Your task to perform on an android device: turn off notifications settings in the gmail app Image 0: 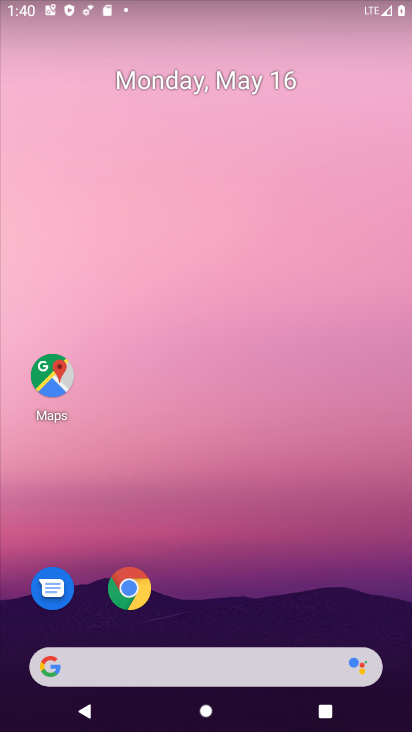
Step 0: drag from (268, 573) to (199, 102)
Your task to perform on an android device: turn off notifications settings in the gmail app Image 1: 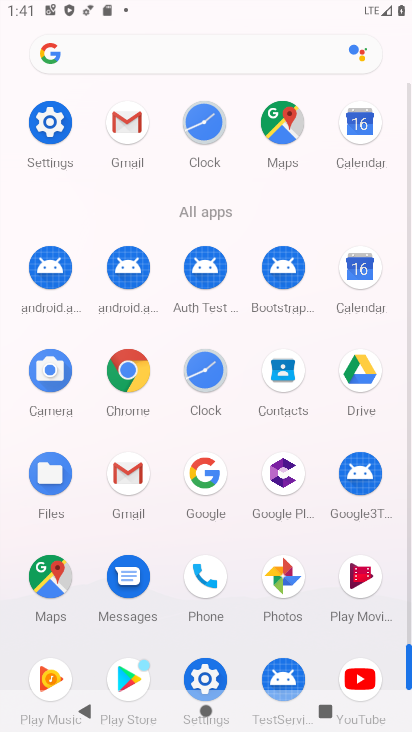
Step 1: click (127, 124)
Your task to perform on an android device: turn off notifications settings in the gmail app Image 2: 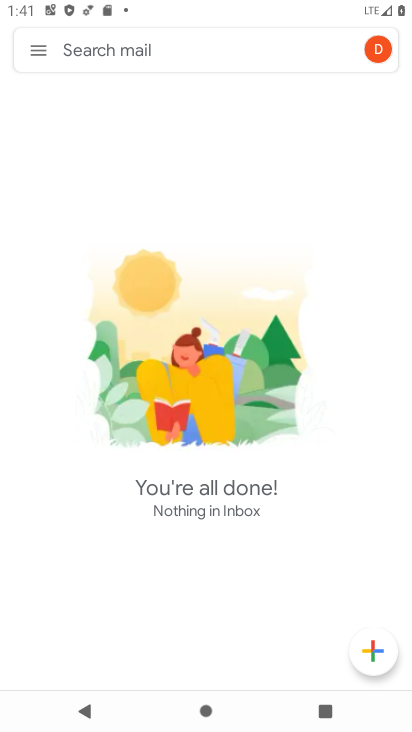
Step 2: click (33, 54)
Your task to perform on an android device: turn off notifications settings in the gmail app Image 3: 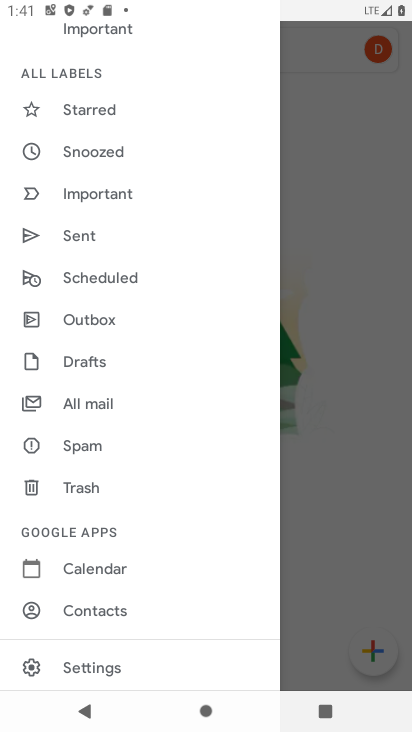
Step 3: click (107, 662)
Your task to perform on an android device: turn off notifications settings in the gmail app Image 4: 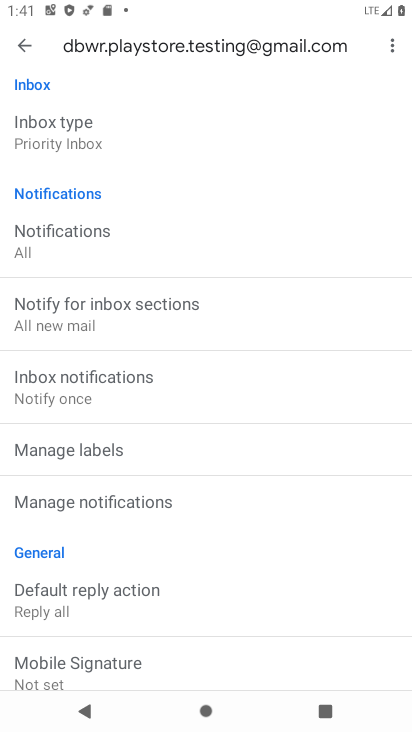
Step 4: drag from (150, 532) to (173, 422)
Your task to perform on an android device: turn off notifications settings in the gmail app Image 5: 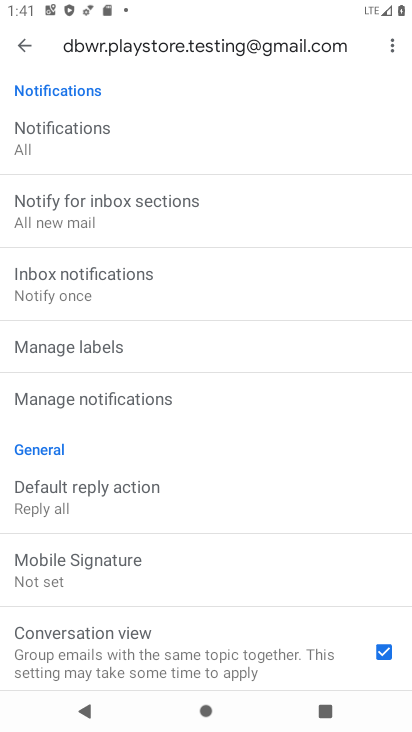
Step 5: click (122, 400)
Your task to perform on an android device: turn off notifications settings in the gmail app Image 6: 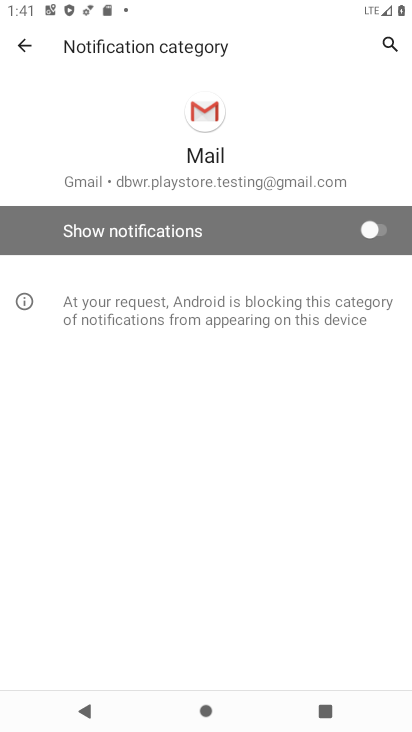
Step 6: task complete